Your task to perform on an android device: Search for acer nitro on costco.com, select the first entry, add it to the cart, then select checkout. Image 0: 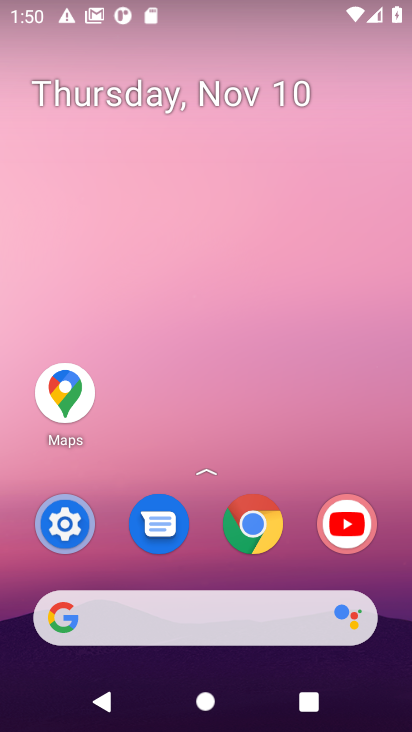
Step 0: click (246, 488)
Your task to perform on an android device: Search for acer nitro on costco.com, select the first entry, add it to the cart, then select checkout. Image 1: 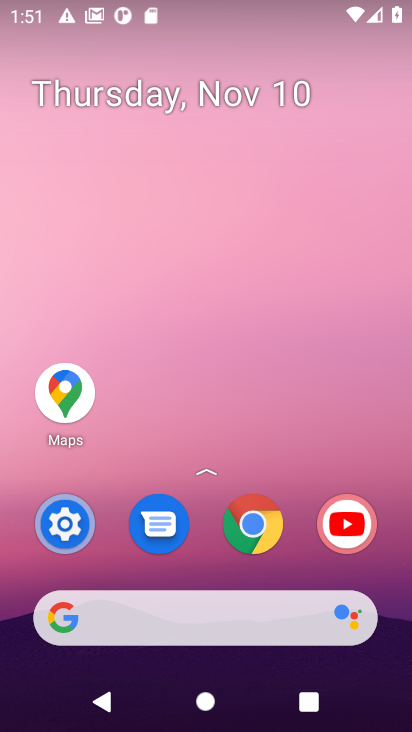
Step 1: click (263, 537)
Your task to perform on an android device: Search for acer nitro on costco.com, select the first entry, add it to the cart, then select checkout. Image 2: 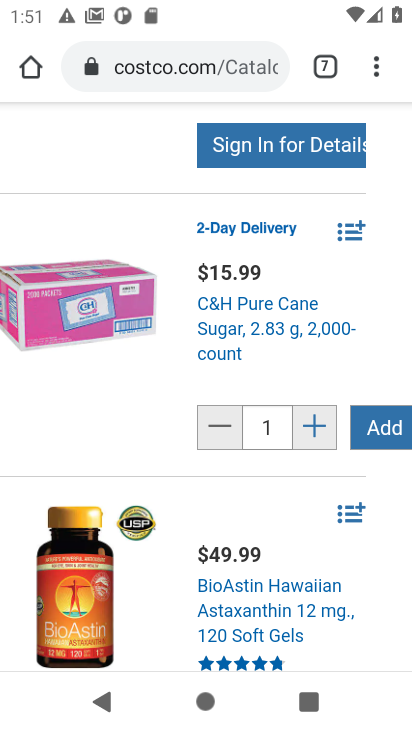
Step 2: click (104, 435)
Your task to perform on an android device: Search for acer nitro on costco.com, select the first entry, add it to the cart, then select checkout. Image 3: 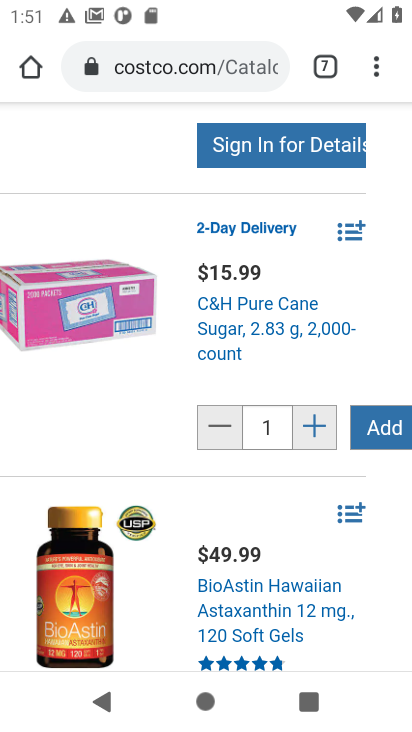
Step 3: drag from (138, 144) to (105, 730)
Your task to perform on an android device: Search for acer nitro on costco.com, select the first entry, add it to the cart, then select checkout. Image 4: 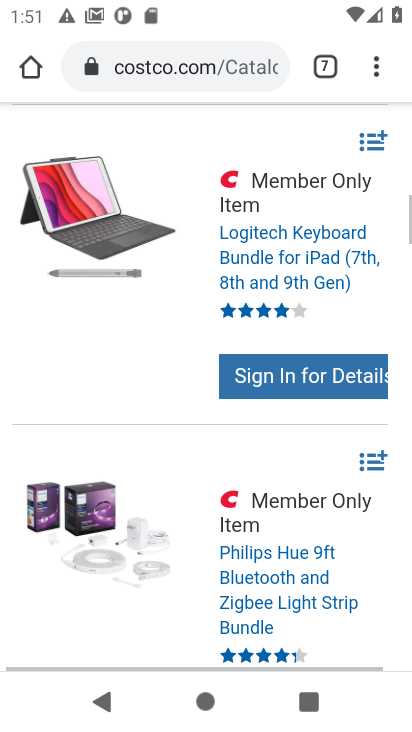
Step 4: drag from (165, 154) to (211, 699)
Your task to perform on an android device: Search for acer nitro on costco.com, select the first entry, add it to the cart, then select checkout. Image 5: 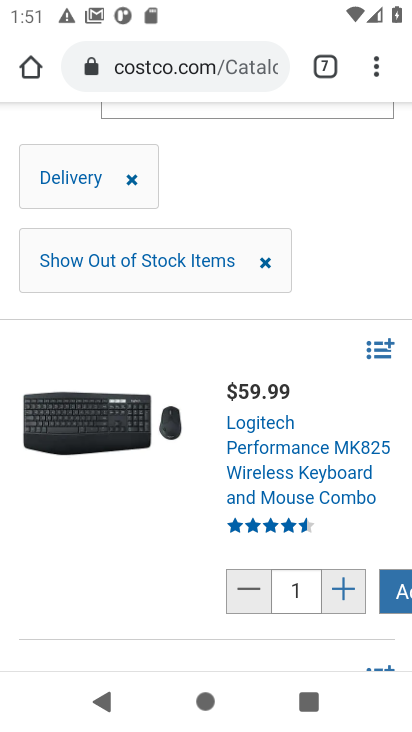
Step 5: drag from (317, 158) to (280, 716)
Your task to perform on an android device: Search for acer nitro on costco.com, select the first entry, add it to the cart, then select checkout. Image 6: 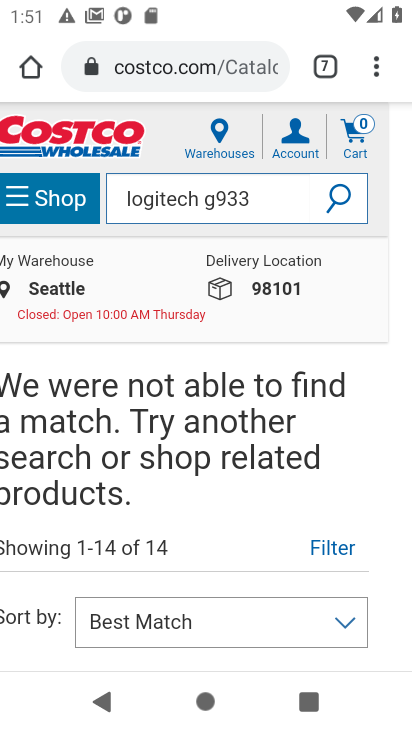
Step 6: click (245, 193)
Your task to perform on an android device: Search for acer nitro on costco.com, select the first entry, add it to the cart, then select checkout. Image 7: 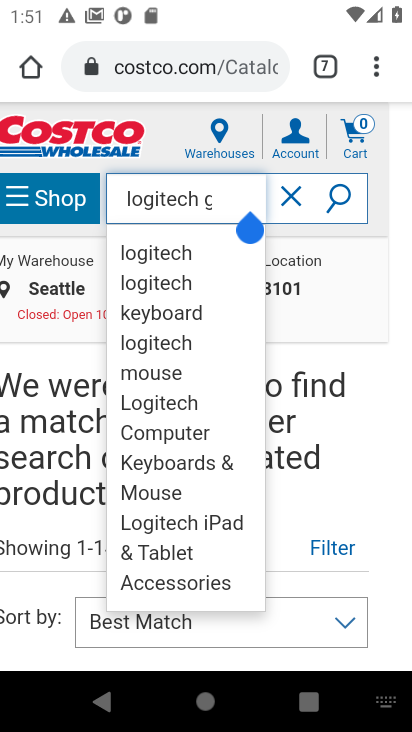
Step 7: click (294, 187)
Your task to perform on an android device: Search for acer nitro on costco.com, select the first entry, add it to the cart, then select checkout. Image 8: 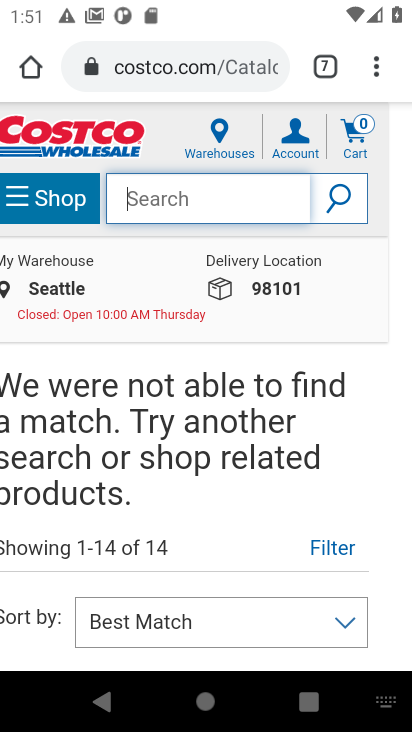
Step 8: type "acer nitro"
Your task to perform on an android device: Search for acer nitro on costco.com, select the first entry, add it to the cart, then select checkout. Image 9: 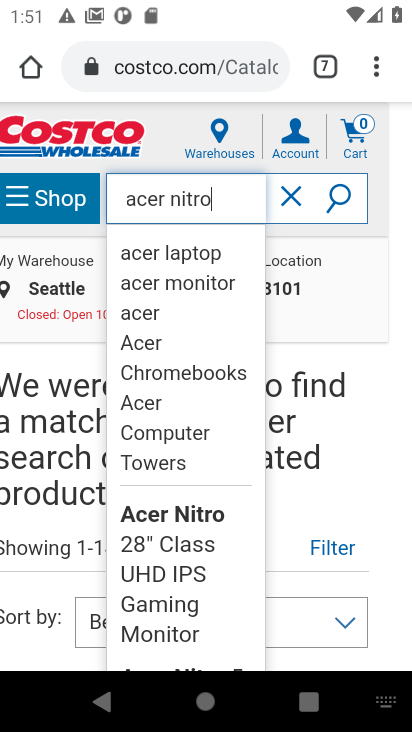
Step 9: click (346, 200)
Your task to perform on an android device: Search for acer nitro on costco.com, select the first entry, add it to the cart, then select checkout. Image 10: 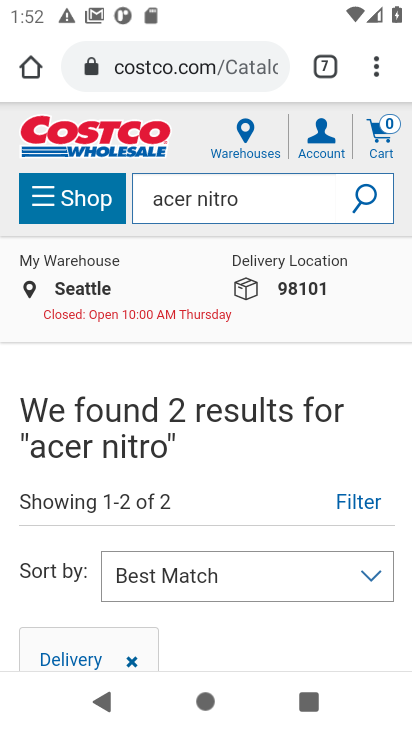
Step 10: drag from (228, 634) to (245, 110)
Your task to perform on an android device: Search for acer nitro on costco.com, select the first entry, add it to the cart, then select checkout. Image 11: 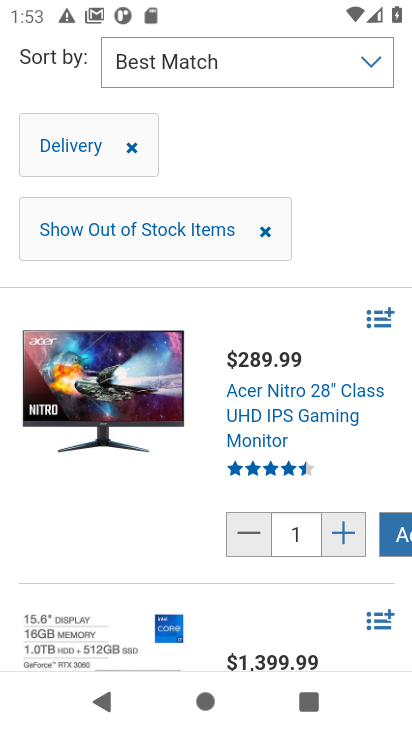
Step 11: click (398, 537)
Your task to perform on an android device: Search for acer nitro on costco.com, select the first entry, add it to the cart, then select checkout. Image 12: 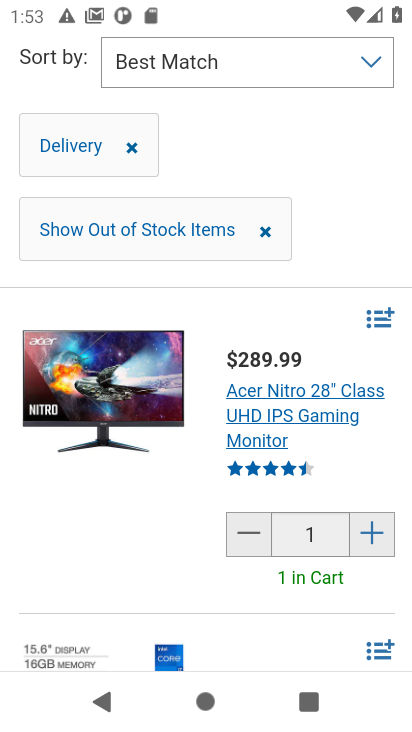
Step 12: drag from (311, 199) to (301, 527)
Your task to perform on an android device: Search for acer nitro on costco.com, select the first entry, add it to the cart, then select checkout. Image 13: 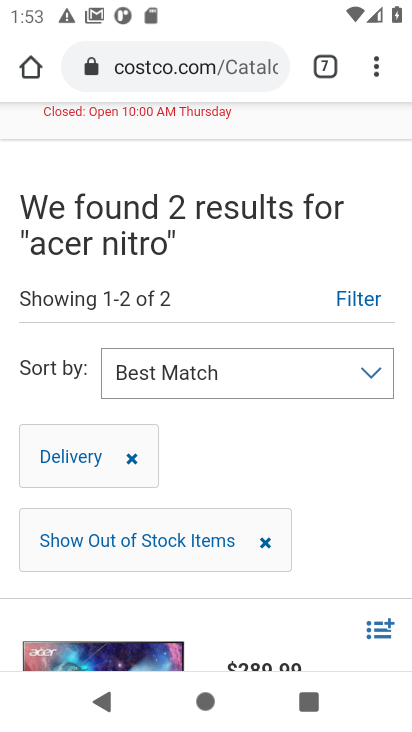
Step 13: drag from (343, 124) to (375, 663)
Your task to perform on an android device: Search for acer nitro on costco.com, select the first entry, add it to the cart, then select checkout. Image 14: 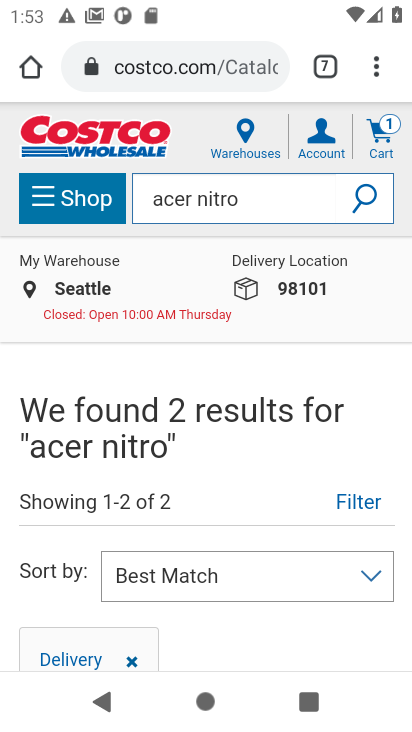
Step 14: click (386, 136)
Your task to perform on an android device: Search for acer nitro on costco.com, select the first entry, add it to the cart, then select checkout. Image 15: 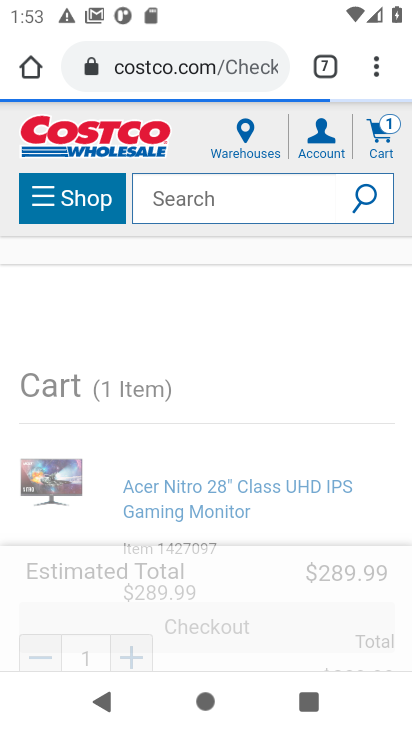
Step 15: click (206, 637)
Your task to perform on an android device: Search for acer nitro on costco.com, select the first entry, add it to the cart, then select checkout. Image 16: 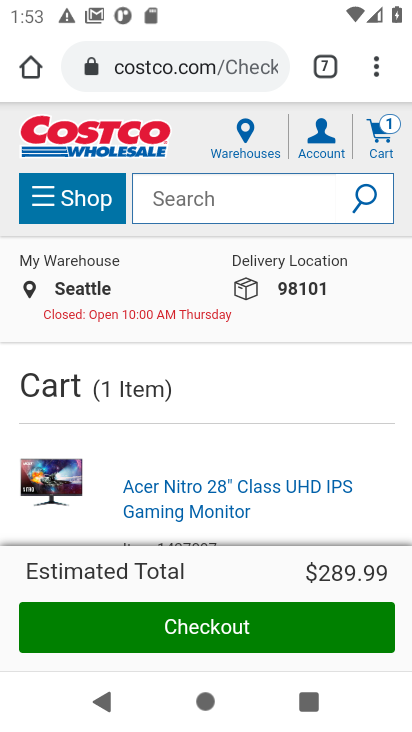
Step 16: click (243, 640)
Your task to perform on an android device: Search for acer nitro on costco.com, select the first entry, add it to the cart, then select checkout. Image 17: 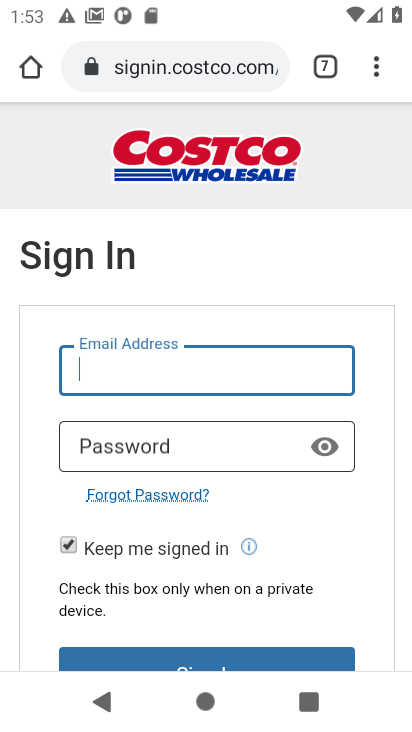
Step 17: task complete